Your task to perform on an android device: move an email to a new category in the gmail app Image 0: 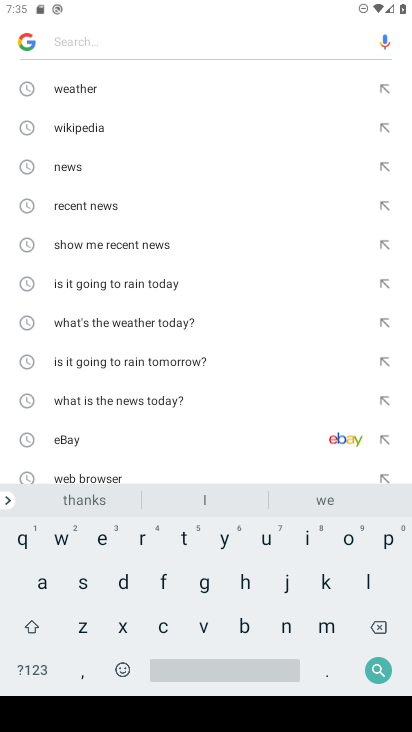
Step 0: press home button
Your task to perform on an android device: move an email to a new category in the gmail app Image 1: 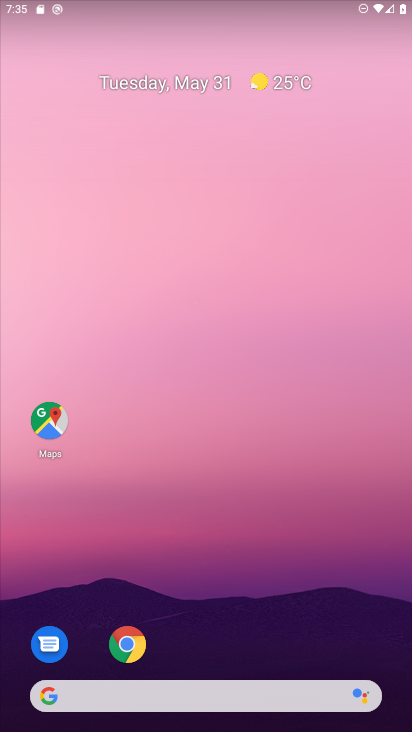
Step 1: drag from (200, 726) to (182, 315)
Your task to perform on an android device: move an email to a new category in the gmail app Image 2: 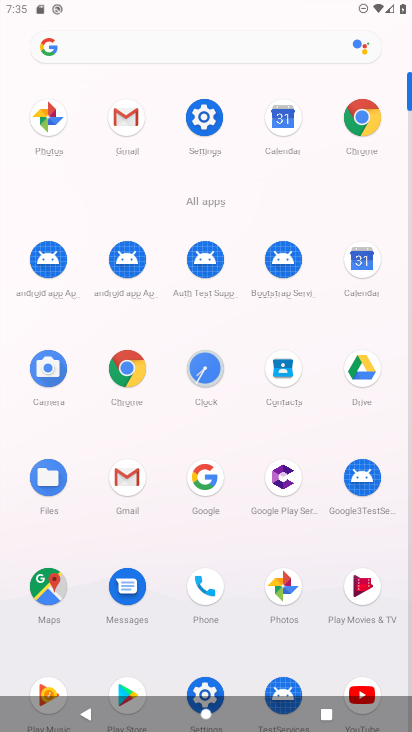
Step 2: click (124, 472)
Your task to perform on an android device: move an email to a new category in the gmail app Image 3: 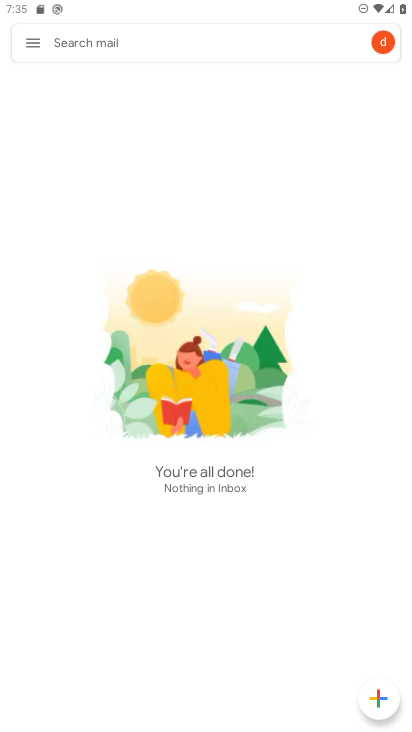
Step 3: click (44, 44)
Your task to perform on an android device: move an email to a new category in the gmail app Image 4: 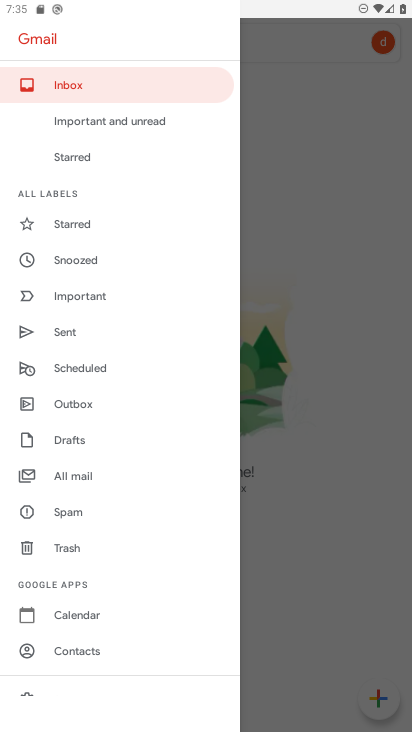
Step 4: drag from (104, 457) to (131, 349)
Your task to perform on an android device: move an email to a new category in the gmail app Image 5: 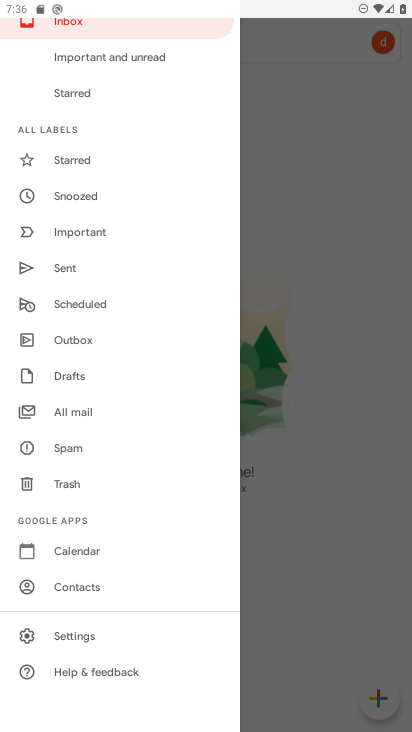
Step 5: click (70, 631)
Your task to perform on an android device: move an email to a new category in the gmail app Image 6: 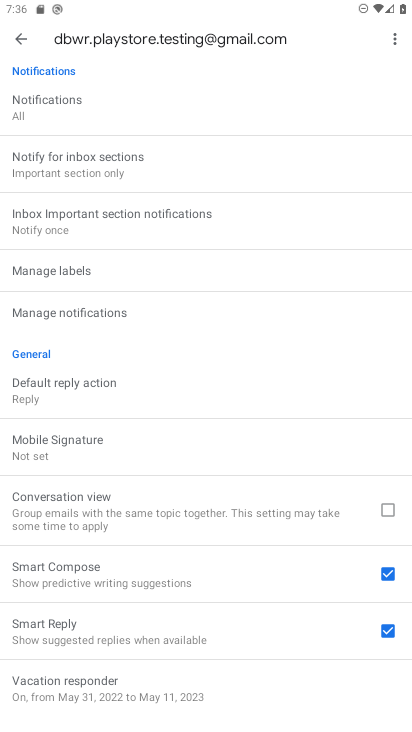
Step 6: drag from (111, 646) to (131, 540)
Your task to perform on an android device: move an email to a new category in the gmail app Image 7: 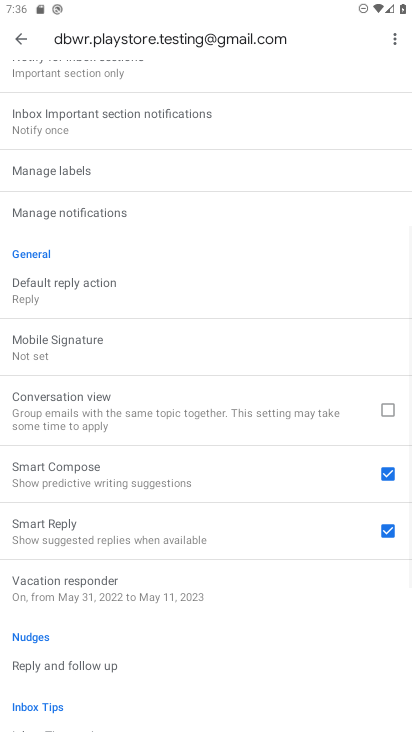
Step 7: drag from (136, 551) to (138, 641)
Your task to perform on an android device: move an email to a new category in the gmail app Image 8: 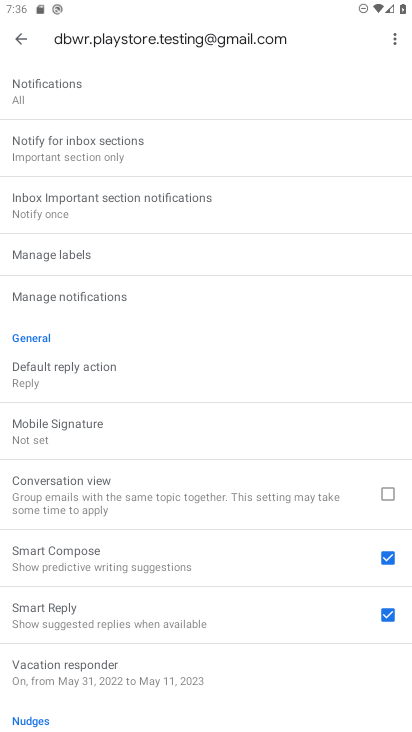
Step 8: drag from (61, 110) to (74, 230)
Your task to perform on an android device: move an email to a new category in the gmail app Image 9: 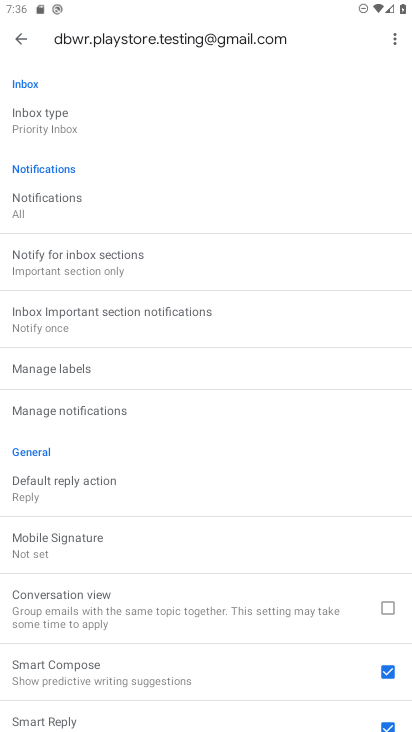
Step 9: click (87, 126)
Your task to perform on an android device: move an email to a new category in the gmail app Image 10: 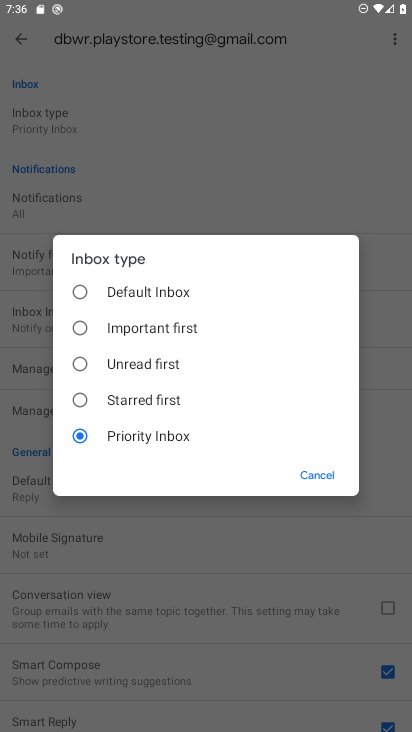
Step 10: click (128, 283)
Your task to perform on an android device: move an email to a new category in the gmail app Image 11: 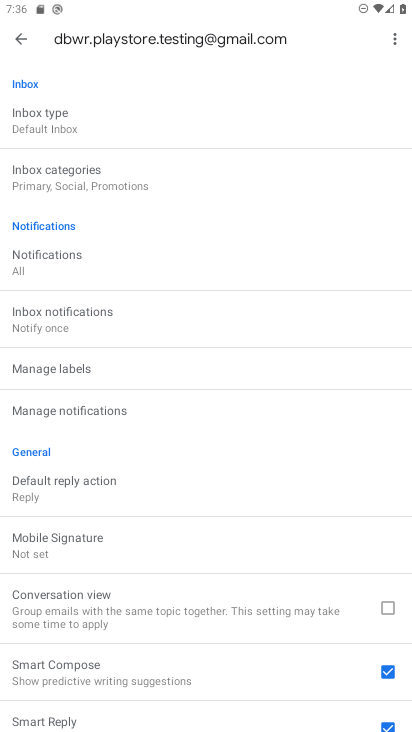
Step 11: click (61, 188)
Your task to perform on an android device: move an email to a new category in the gmail app Image 12: 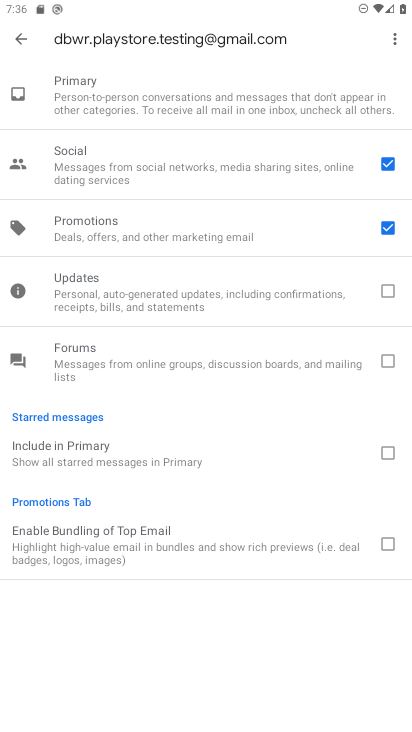
Step 12: click (387, 364)
Your task to perform on an android device: move an email to a new category in the gmail app Image 13: 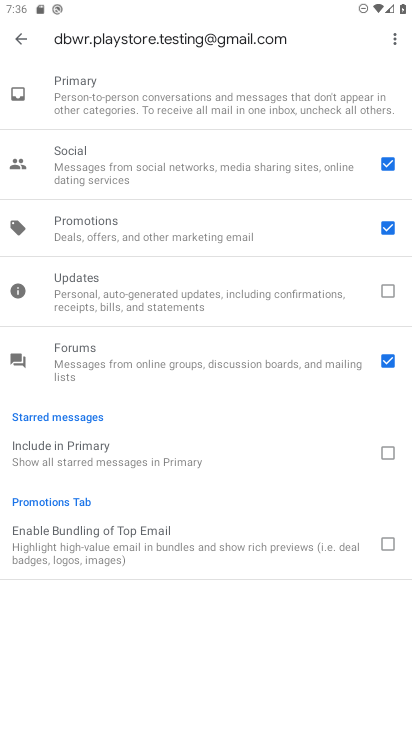
Step 13: task complete